Your task to perform on an android device: What's the weather today? Image 0: 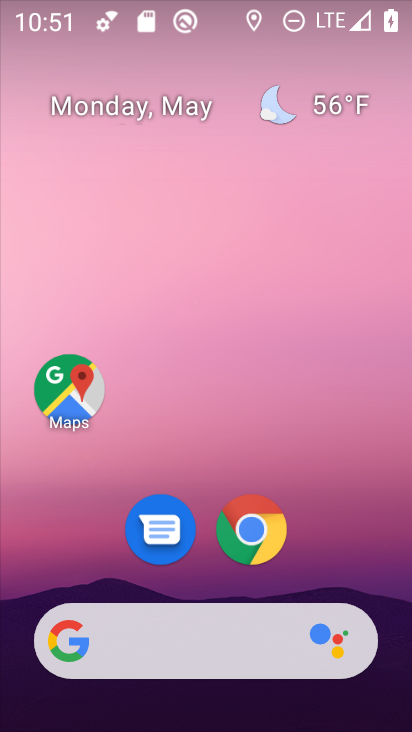
Step 0: click (333, 100)
Your task to perform on an android device: What's the weather today? Image 1: 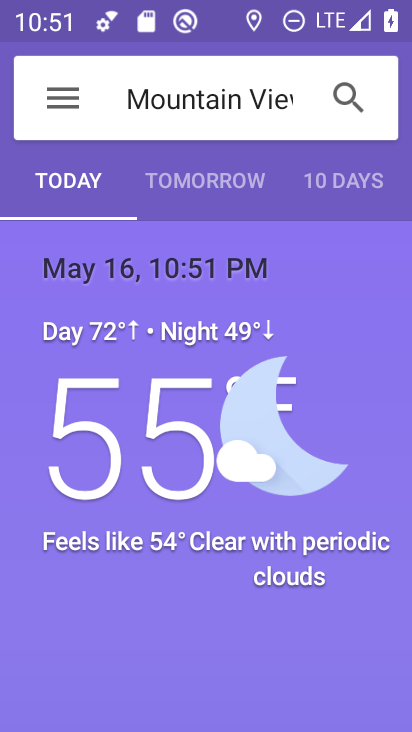
Step 1: task complete